Your task to perform on an android device: toggle javascript in the chrome app Image 0: 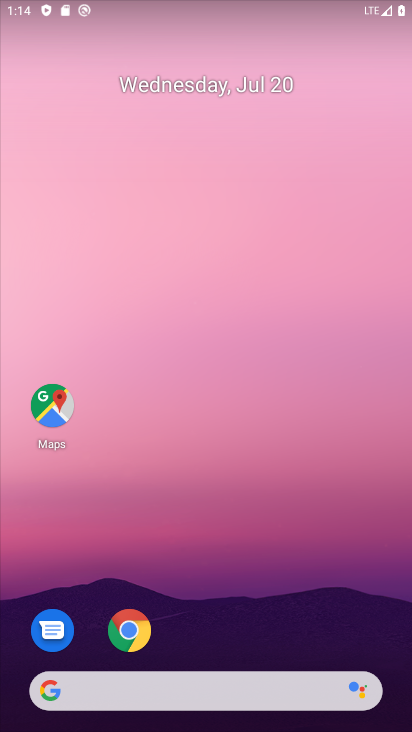
Step 0: drag from (306, 605) to (238, 198)
Your task to perform on an android device: toggle javascript in the chrome app Image 1: 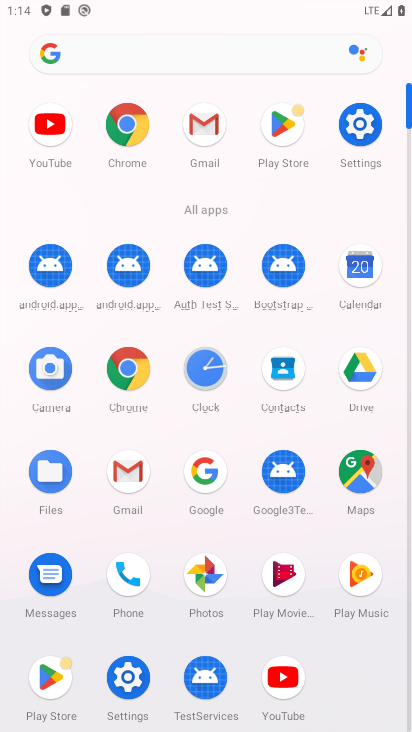
Step 1: click (126, 131)
Your task to perform on an android device: toggle javascript in the chrome app Image 2: 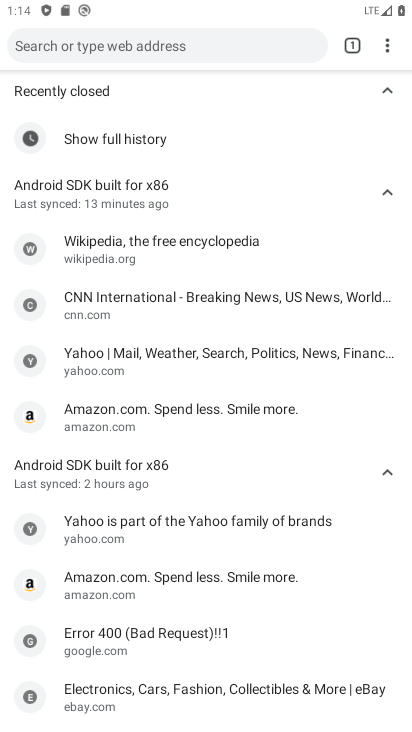
Step 2: click (387, 38)
Your task to perform on an android device: toggle javascript in the chrome app Image 3: 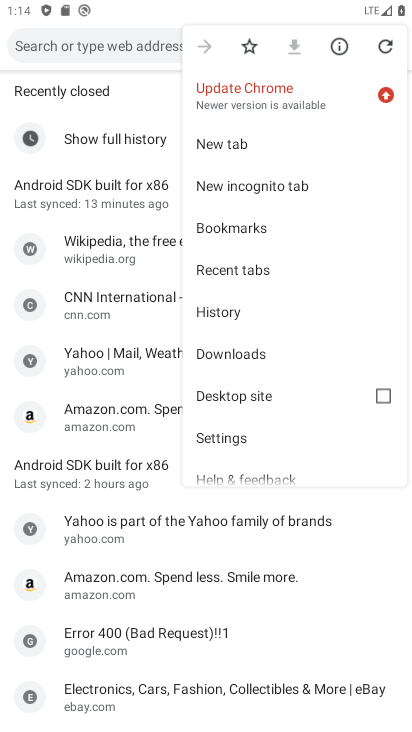
Step 3: drag from (278, 294) to (314, 148)
Your task to perform on an android device: toggle javascript in the chrome app Image 4: 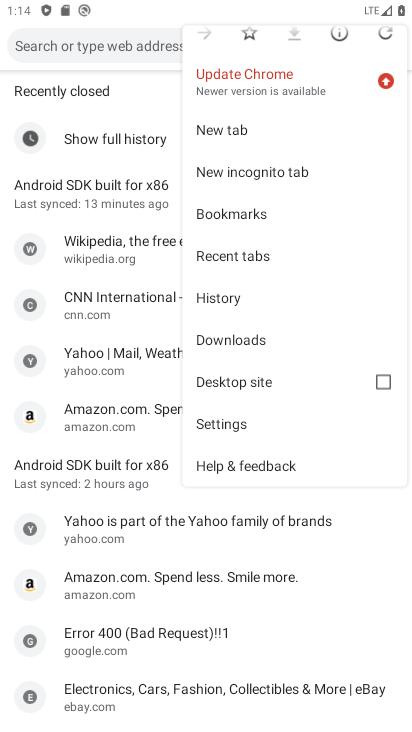
Step 4: click (234, 431)
Your task to perform on an android device: toggle javascript in the chrome app Image 5: 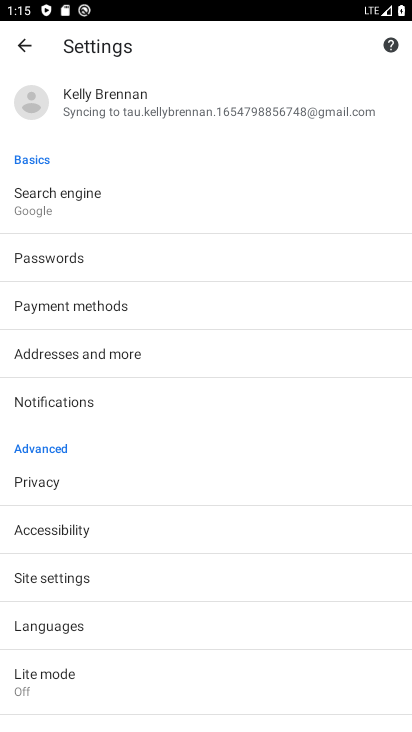
Step 5: drag from (89, 664) to (145, 249)
Your task to perform on an android device: toggle javascript in the chrome app Image 6: 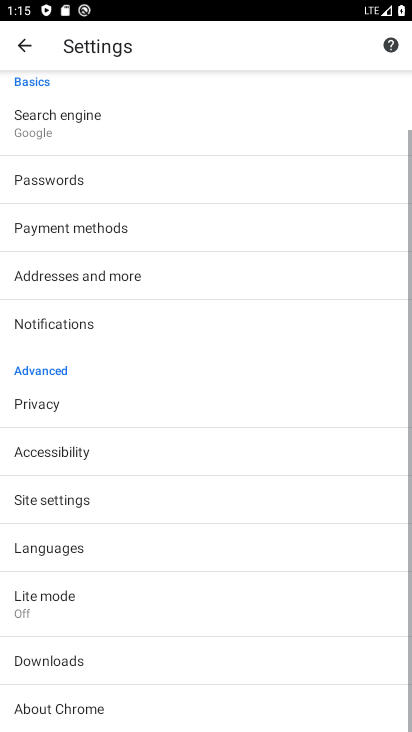
Step 6: drag from (107, 639) to (165, 287)
Your task to perform on an android device: toggle javascript in the chrome app Image 7: 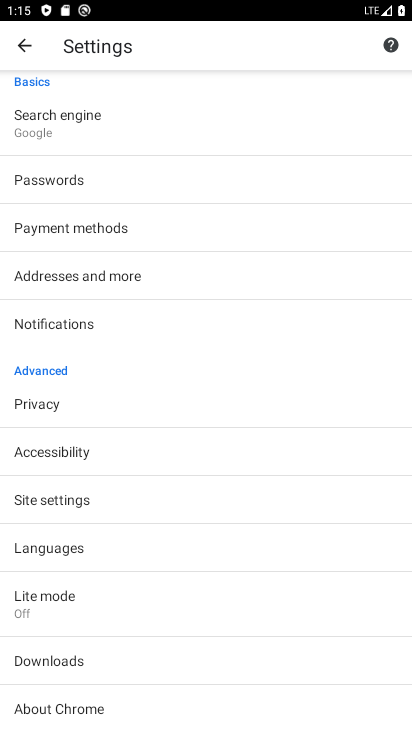
Step 7: click (79, 502)
Your task to perform on an android device: toggle javascript in the chrome app Image 8: 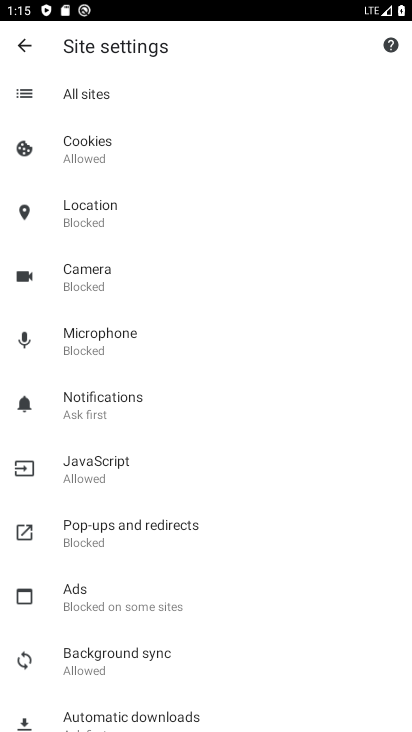
Step 8: click (87, 461)
Your task to perform on an android device: toggle javascript in the chrome app Image 9: 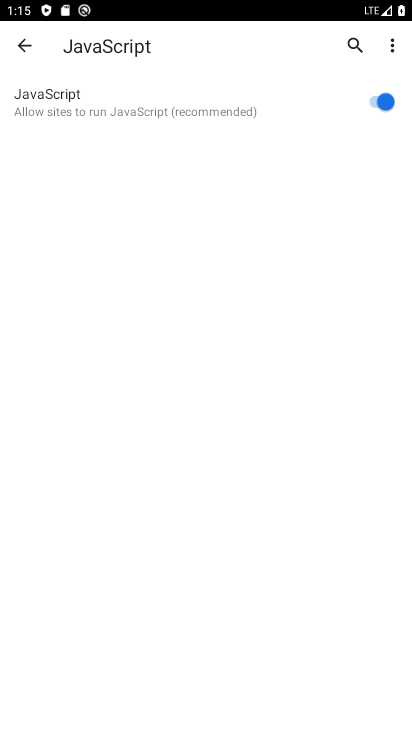
Step 9: click (385, 103)
Your task to perform on an android device: toggle javascript in the chrome app Image 10: 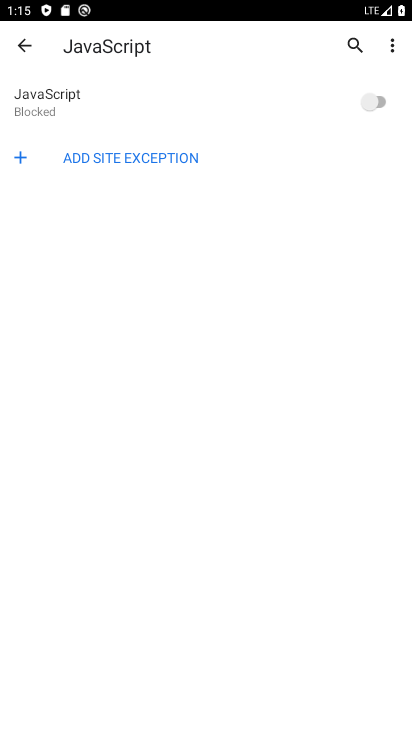
Step 10: task complete